Your task to perform on an android device: turn pop-ups off in chrome Image 0: 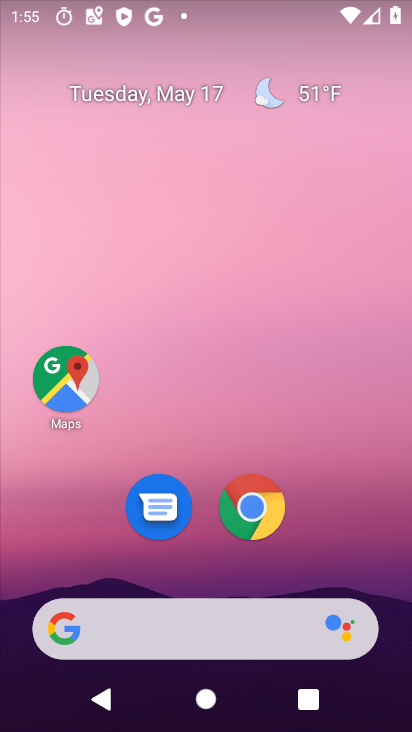
Step 0: click (244, 512)
Your task to perform on an android device: turn pop-ups off in chrome Image 1: 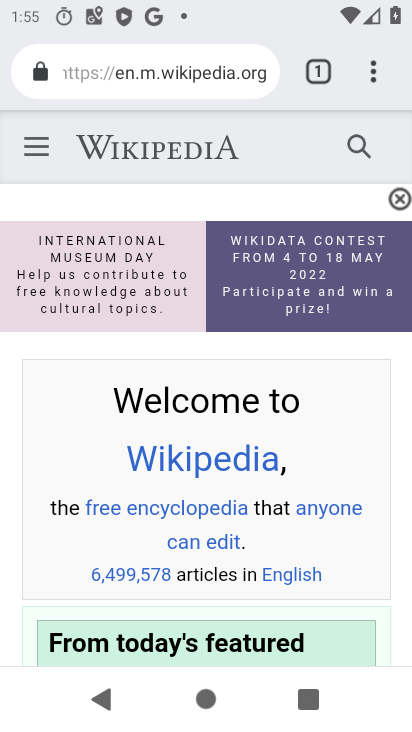
Step 1: click (366, 78)
Your task to perform on an android device: turn pop-ups off in chrome Image 2: 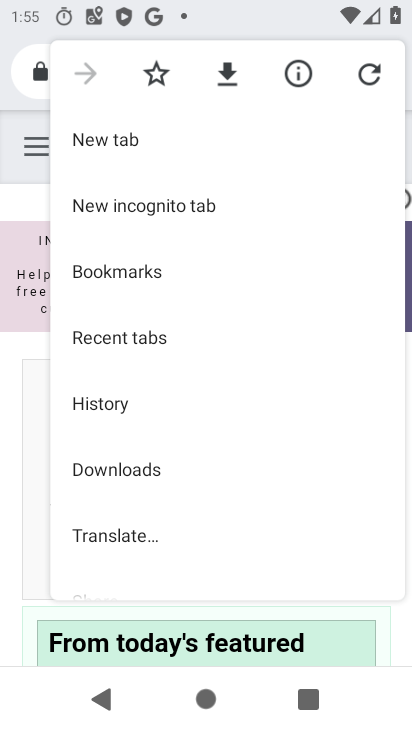
Step 2: drag from (249, 430) to (244, 162)
Your task to perform on an android device: turn pop-ups off in chrome Image 3: 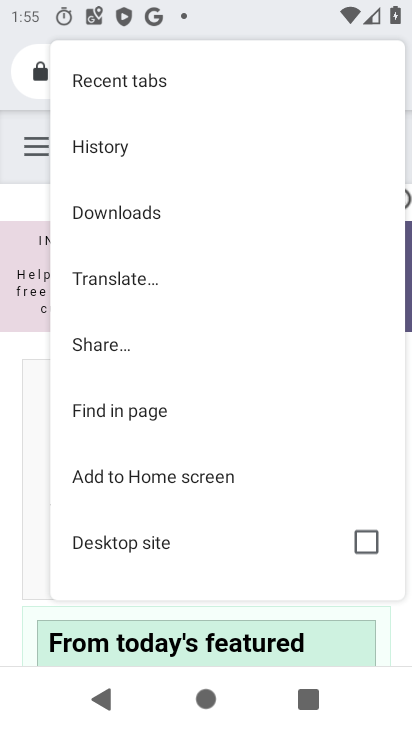
Step 3: drag from (181, 529) to (228, 217)
Your task to perform on an android device: turn pop-ups off in chrome Image 4: 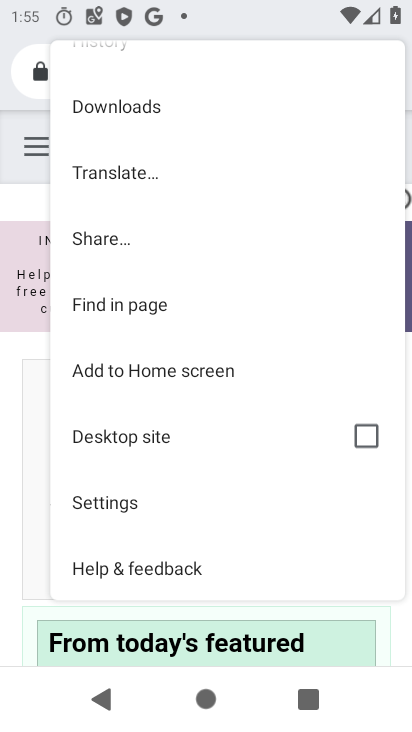
Step 4: click (141, 501)
Your task to perform on an android device: turn pop-ups off in chrome Image 5: 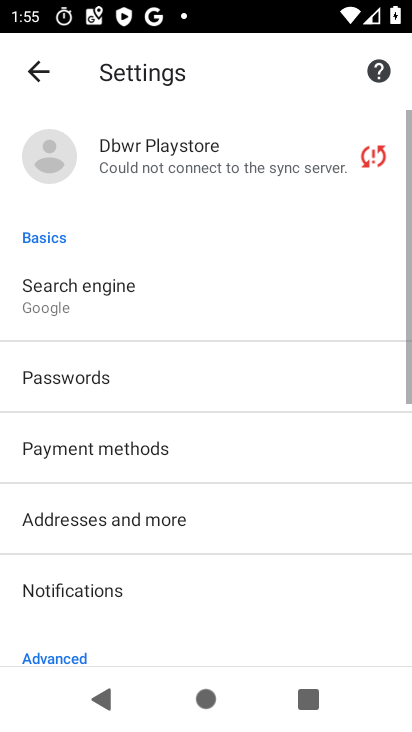
Step 5: drag from (218, 500) to (276, 129)
Your task to perform on an android device: turn pop-ups off in chrome Image 6: 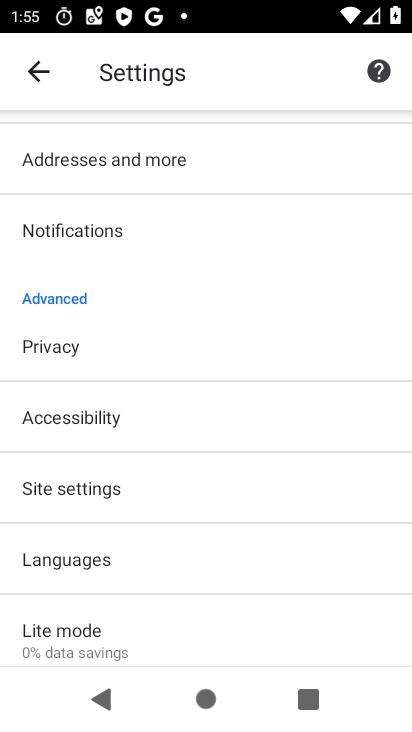
Step 6: click (126, 481)
Your task to perform on an android device: turn pop-ups off in chrome Image 7: 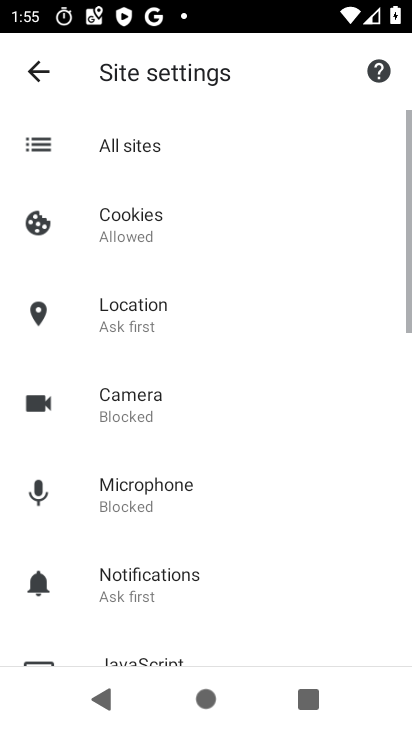
Step 7: drag from (211, 562) to (237, 138)
Your task to perform on an android device: turn pop-ups off in chrome Image 8: 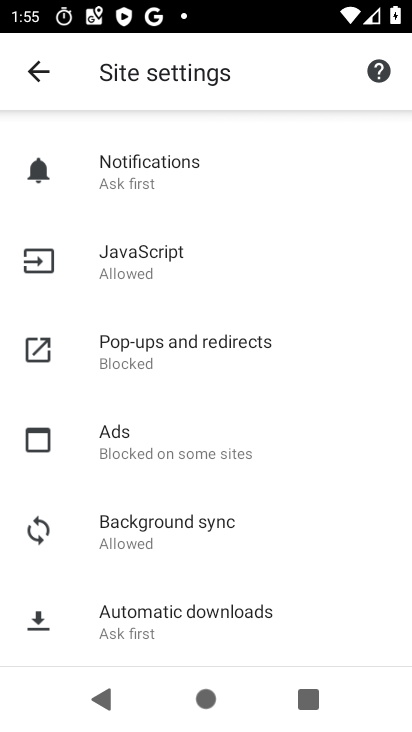
Step 8: click (146, 359)
Your task to perform on an android device: turn pop-ups off in chrome Image 9: 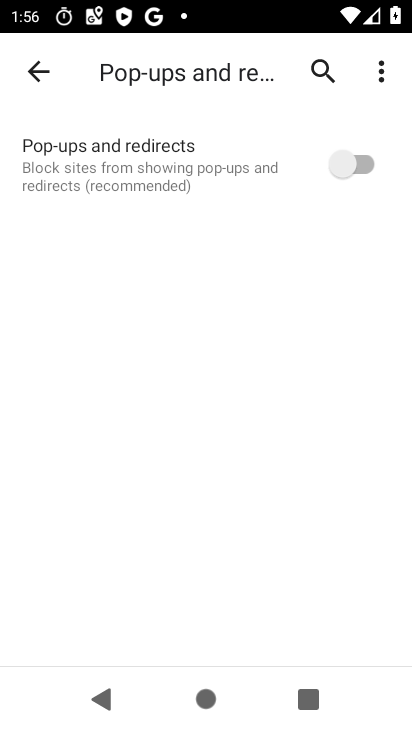
Step 9: task complete